Your task to perform on an android device: Go to ESPN.com Image 0: 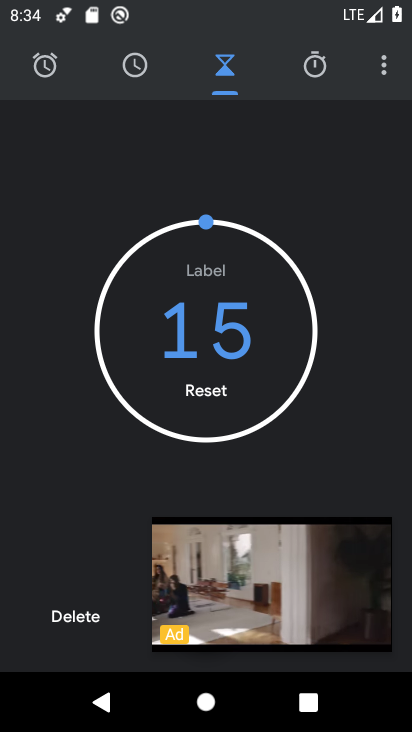
Step 0: click (370, 545)
Your task to perform on an android device: Go to ESPN.com Image 1: 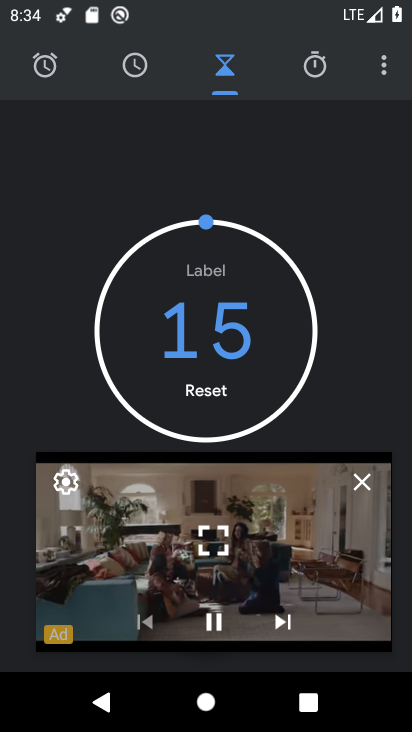
Step 1: click (359, 483)
Your task to perform on an android device: Go to ESPN.com Image 2: 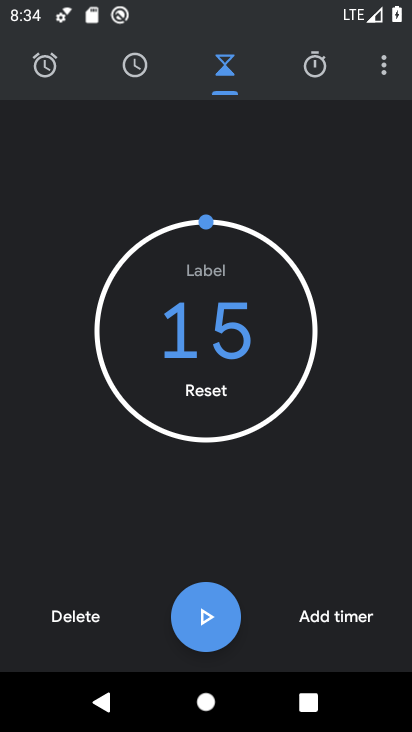
Step 2: press home button
Your task to perform on an android device: Go to ESPN.com Image 3: 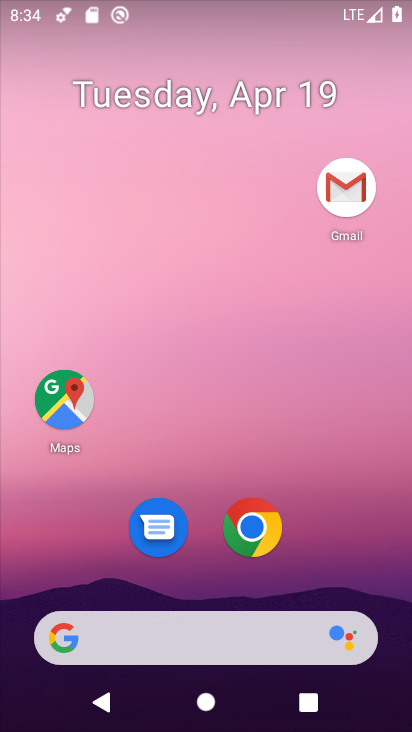
Step 3: click (266, 531)
Your task to perform on an android device: Go to ESPN.com Image 4: 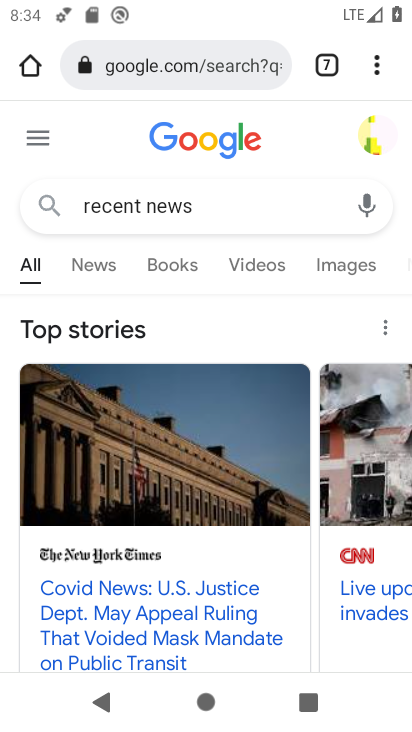
Step 4: click (210, 203)
Your task to perform on an android device: Go to ESPN.com Image 5: 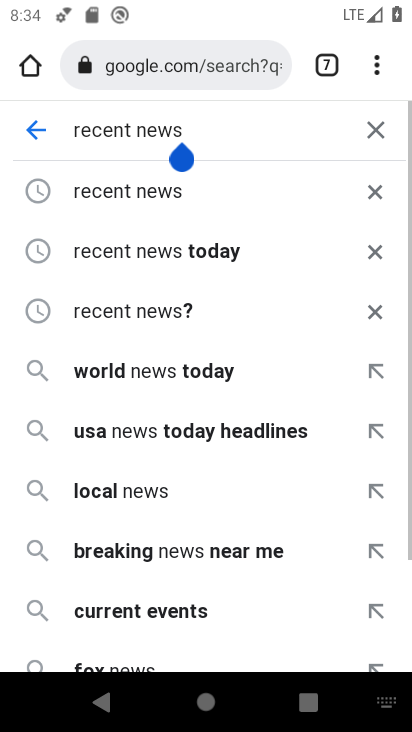
Step 5: click (383, 136)
Your task to perform on an android device: Go to ESPN.com Image 6: 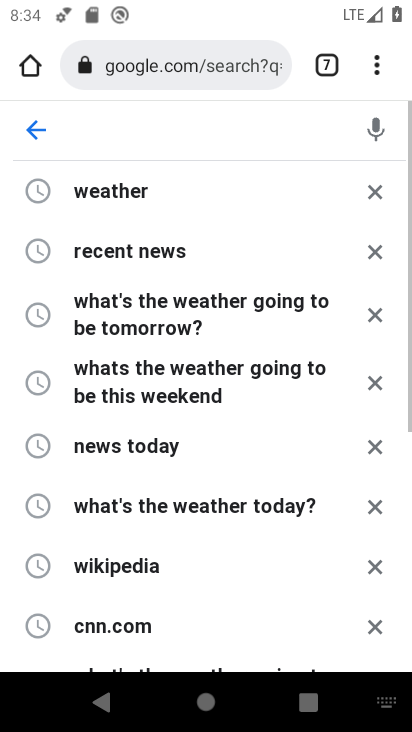
Step 6: type "espn.com"
Your task to perform on an android device: Go to ESPN.com Image 7: 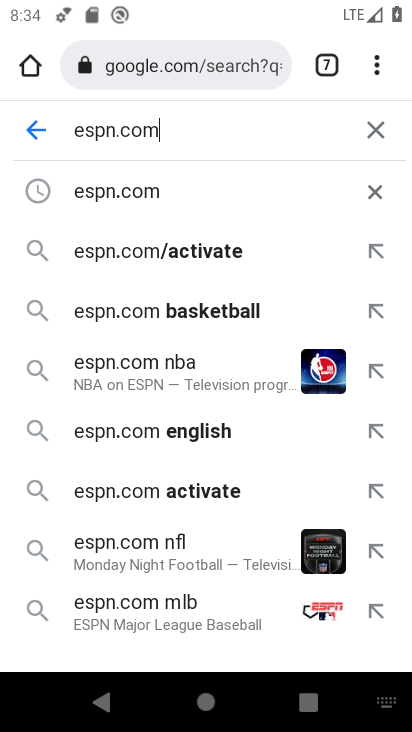
Step 7: click (149, 189)
Your task to perform on an android device: Go to ESPN.com Image 8: 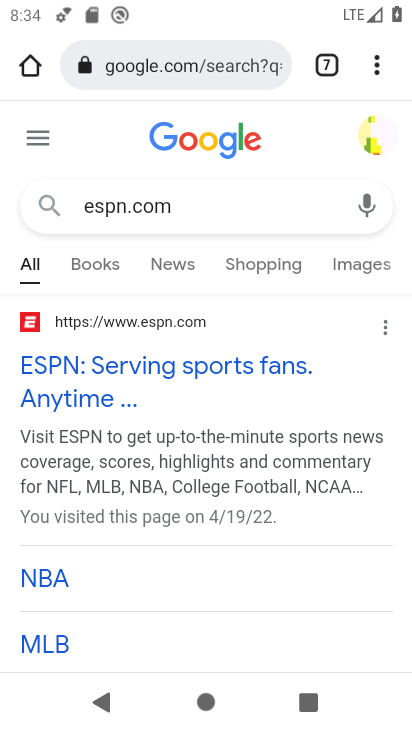
Step 8: click (154, 367)
Your task to perform on an android device: Go to ESPN.com Image 9: 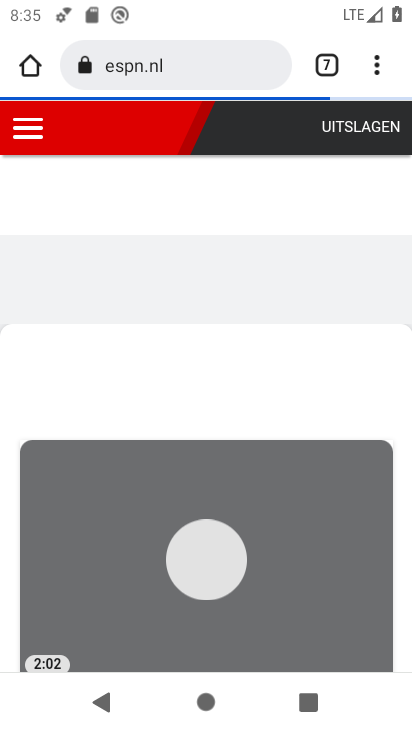
Step 9: task complete